Your task to perform on an android device: Open calendar and show me the first week of next month Image 0: 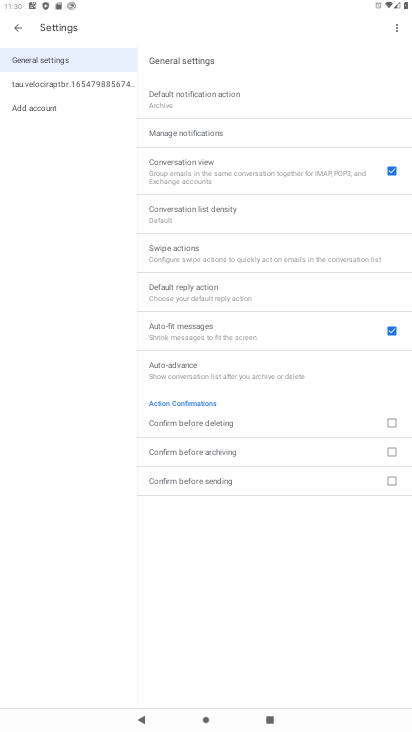
Step 0: press home button
Your task to perform on an android device: Open calendar and show me the first week of next month Image 1: 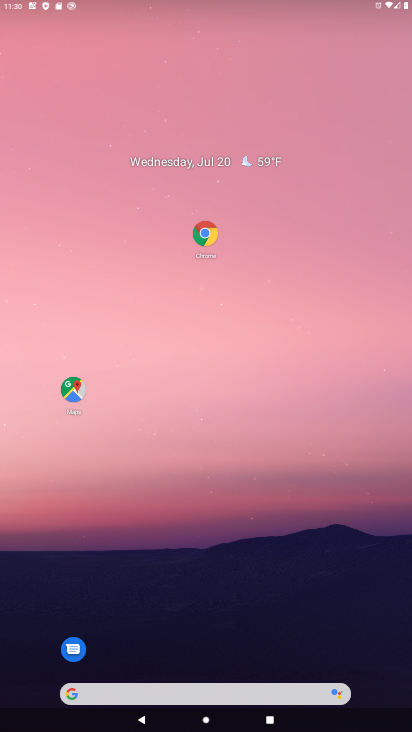
Step 1: drag from (193, 640) to (236, 98)
Your task to perform on an android device: Open calendar and show me the first week of next month Image 2: 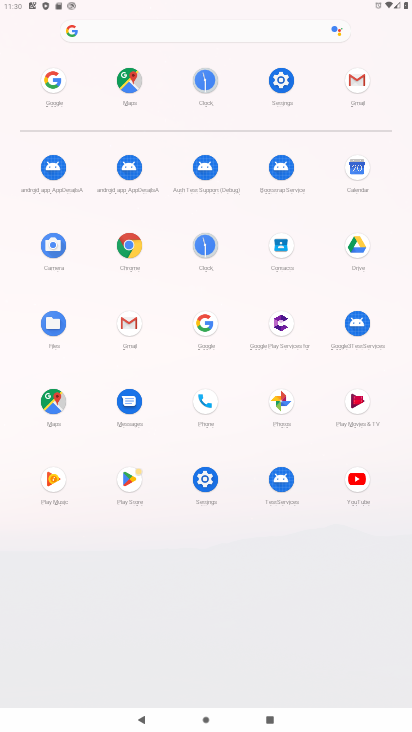
Step 2: click (355, 167)
Your task to perform on an android device: Open calendar and show me the first week of next month Image 3: 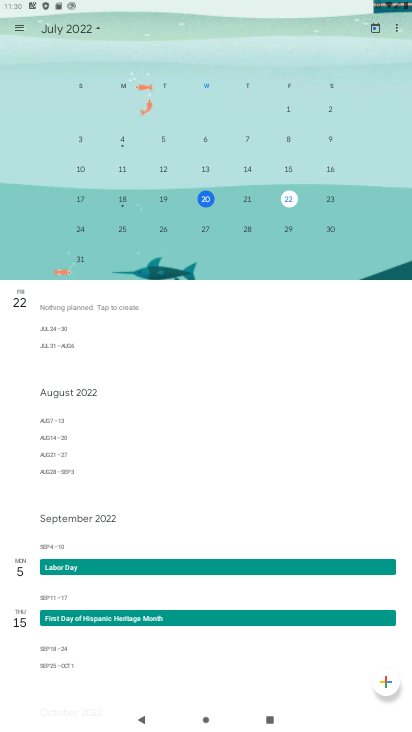
Step 3: click (20, 26)
Your task to perform on an android device: Open calendar and show me the first week of next month Image 4: 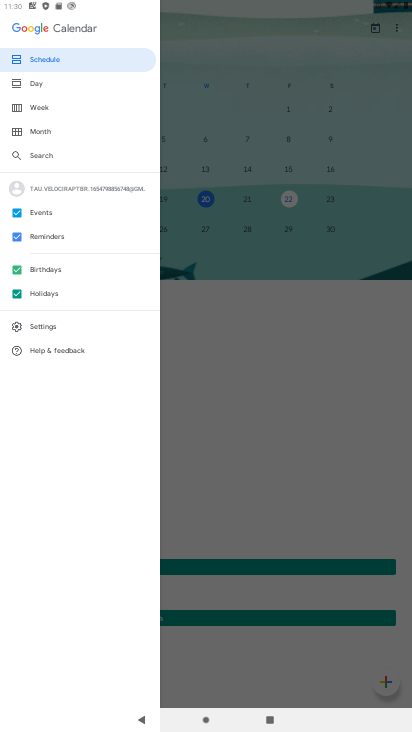
Step 4: click (277, 355)
Your task to perform on an android device: Open calendar and show me the first week of next month Image 5: 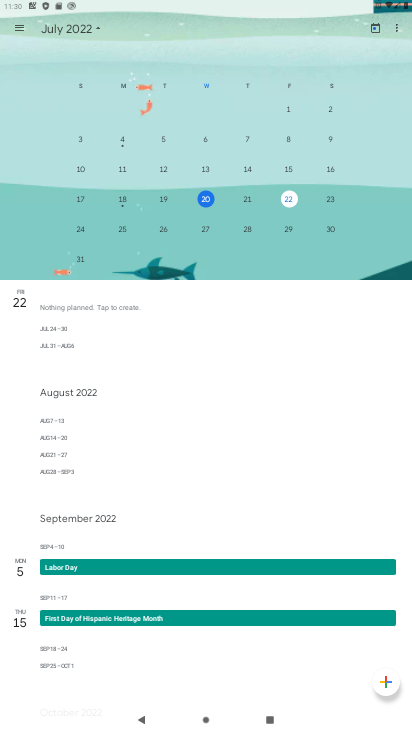
Step 5: drag from (395, 223) to (3, 192)
Your task to perform on an android device: Open calendar and show me the first week of next month Image 6: 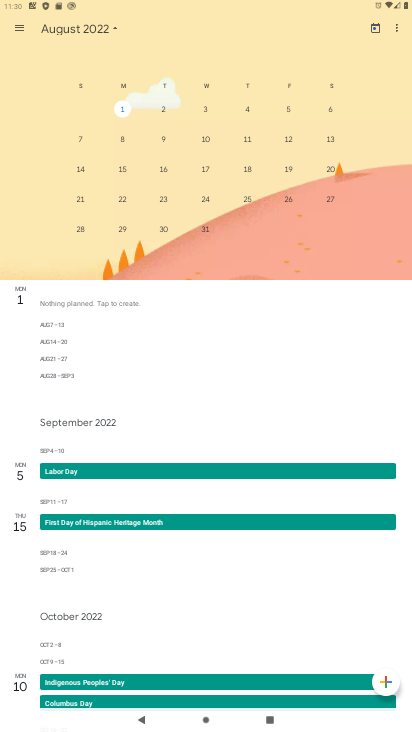
Step 6: click (249, 104)
Your task to perform on an android device: Open calendar and show me the first week of next month Image 7: 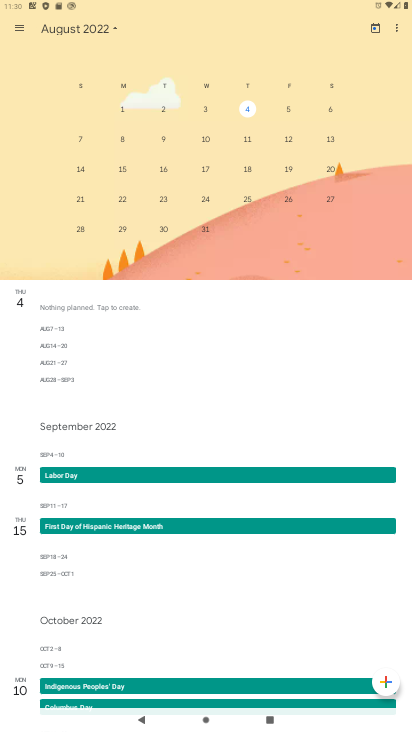
Step 7: task complete